Your task to perform on an android device: check battery use Image 0: 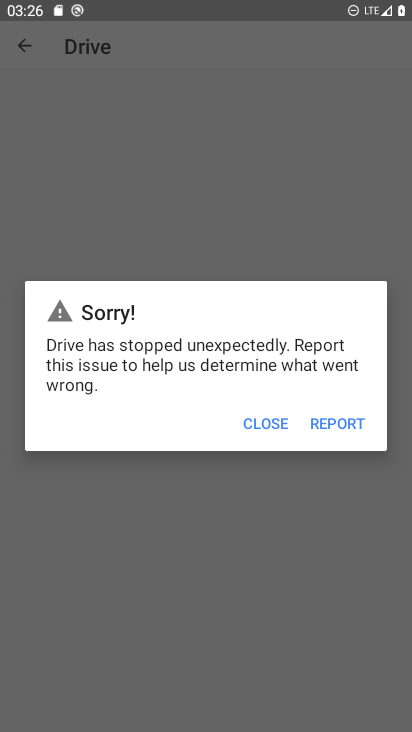
Step 0: press home button
Your task to perform on an android device: check battery use Image 1: 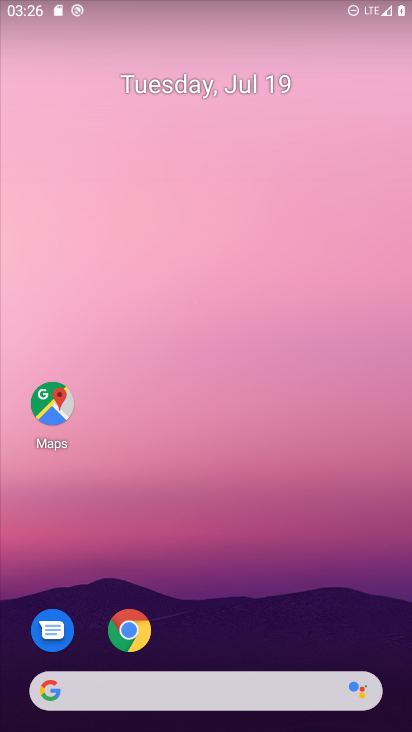
Step 1: drag from (379, 643) to (343, 125)
Your task to perform on an android device: check battery use Image 2: 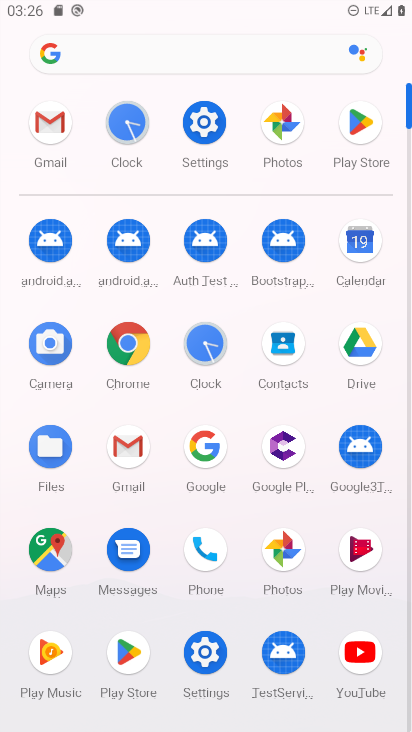
Step 2: click (206, 652)
Your task to perform on an android device: check battery use Image 3: 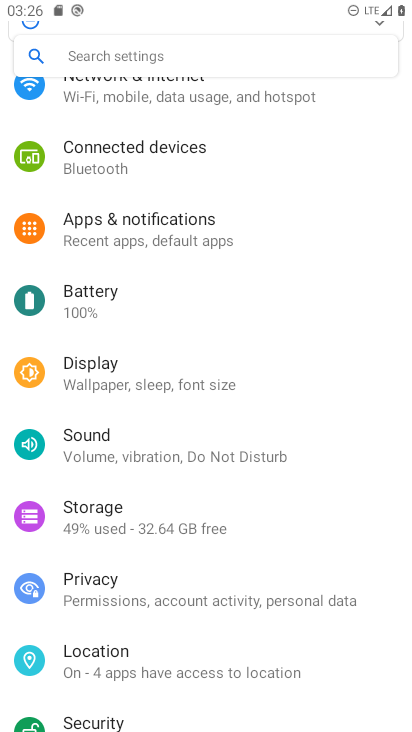
Step 3: click (74, 296)
Your task to perform on an android device: check battery use Image 4: 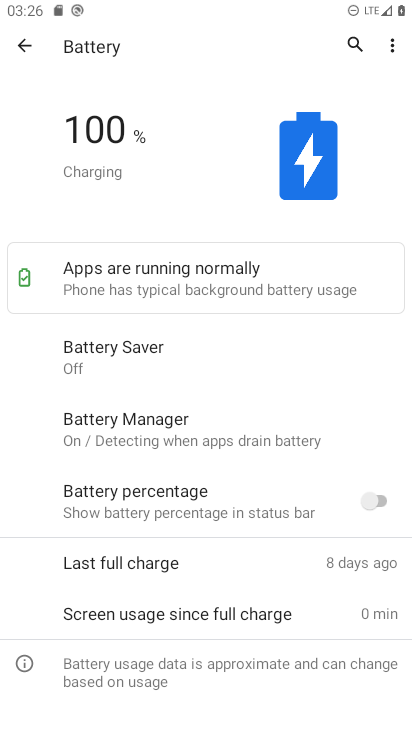
Step 4: click (390, 49)
Your task to perform on an android device: check battery use Image 5: 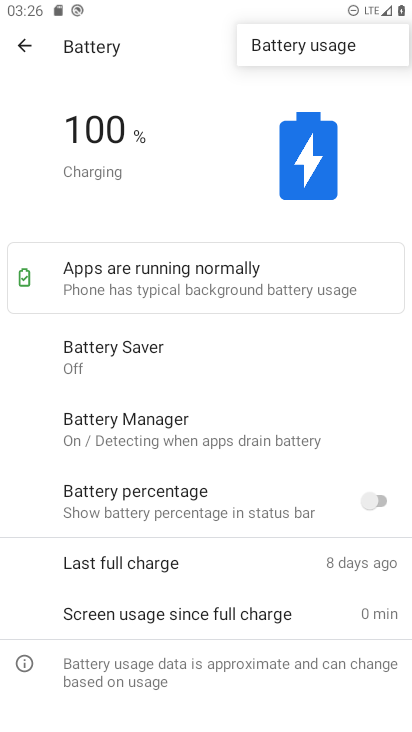
Step 5: click (310, 49)
Your task to perform on an android device: check battery use Image 6: 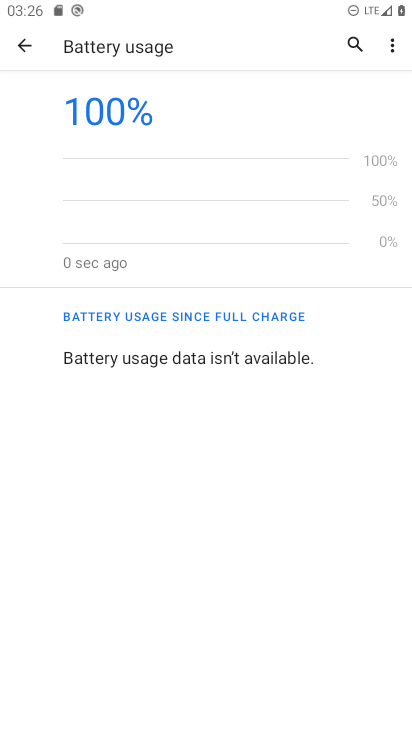
Step 6: task complete